Your task to perform on an android device: turn off data saver in the chrome app Image 0: 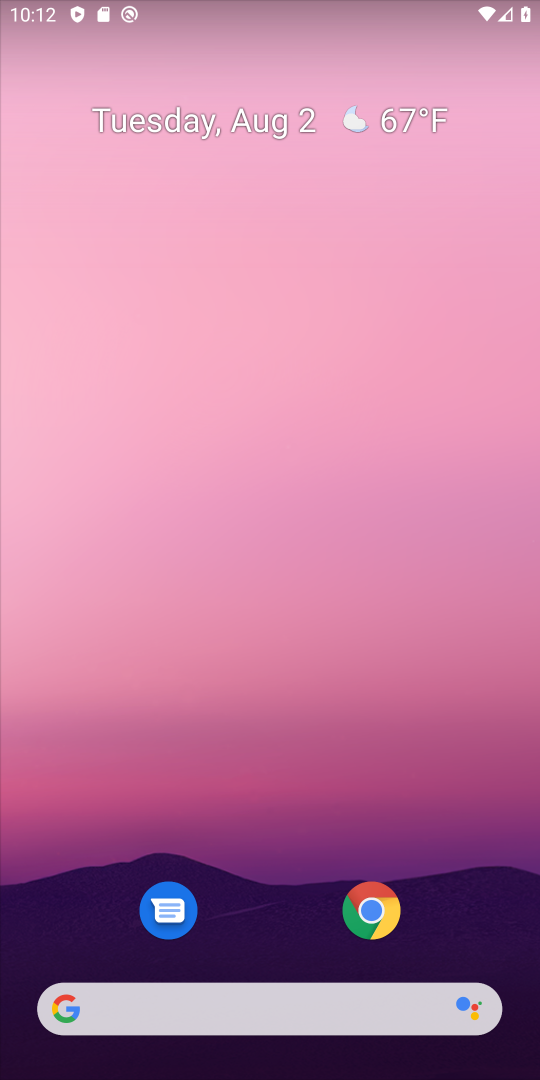
Step 0: drag from (298, 822) to (317, 331)
Your task to perform on an android device: turn off data saver in the chrome app Image 1: 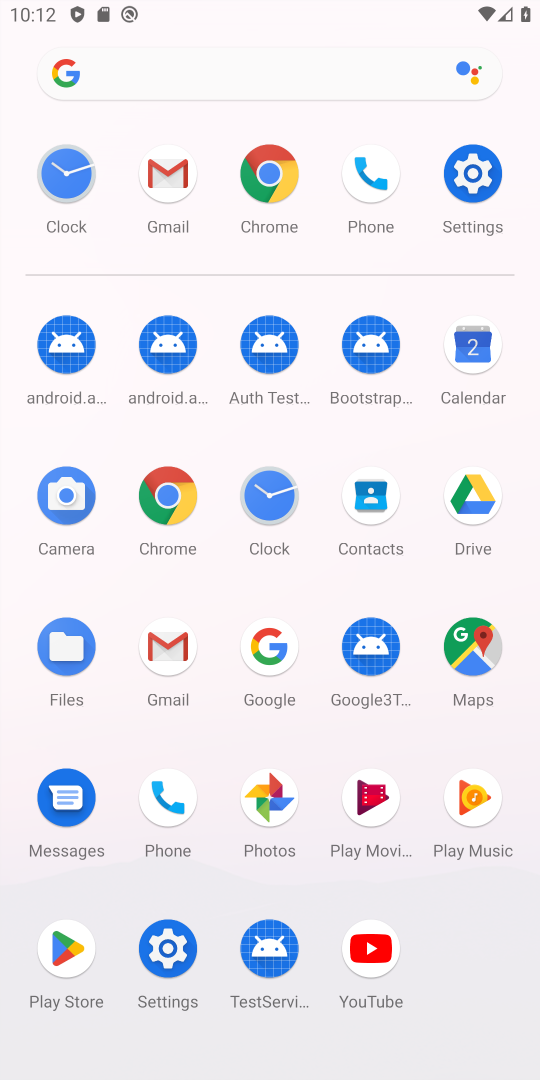
Step 1: click (274, 187)
Your task to perform on an android device: turn off data saver in the chrome app Image 2: 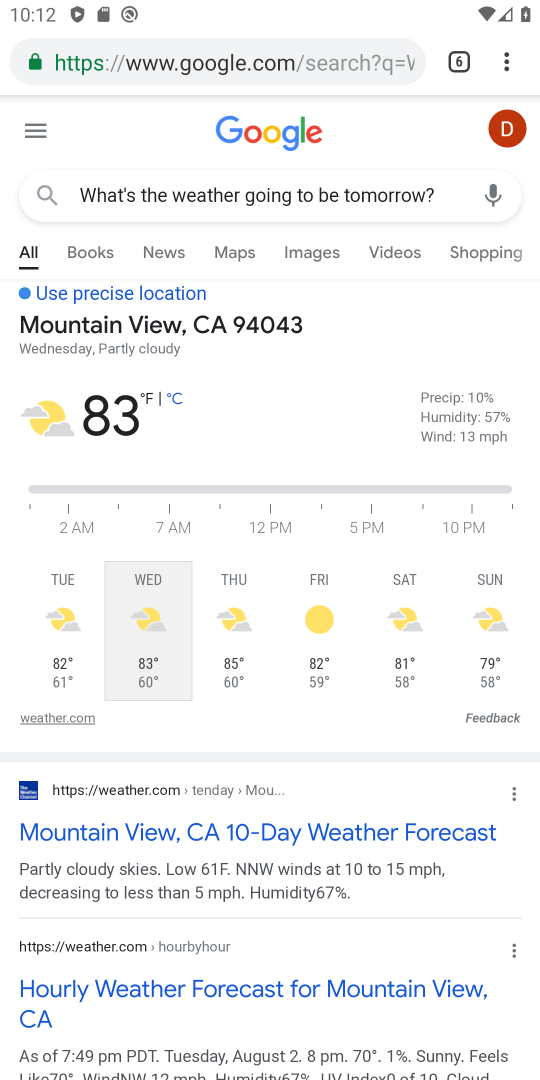
Step 2: click (524, 64)
Your task to perform on an android device: turn off data saver in the chrome app Image 3: 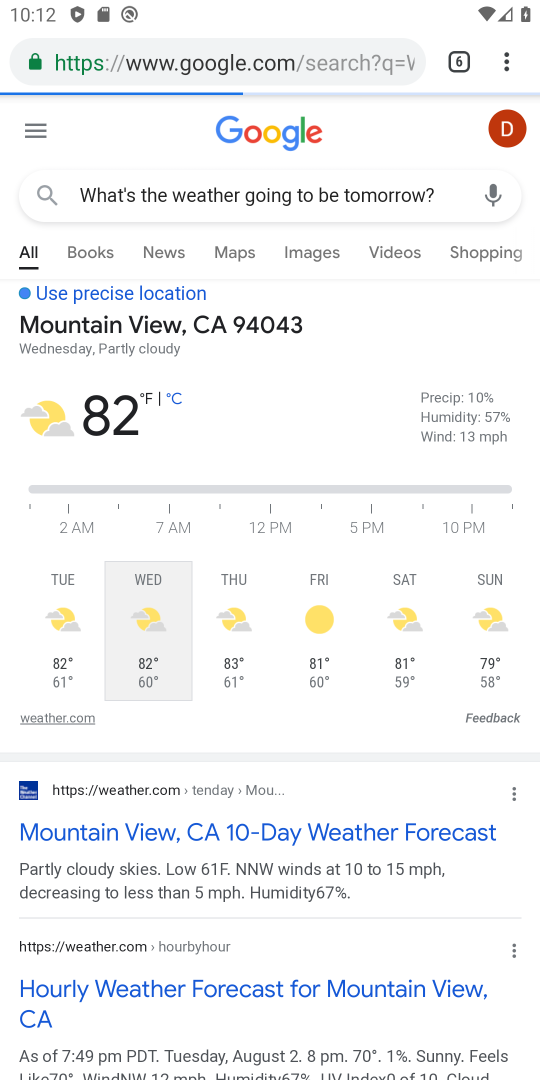
Step 3: click (518, 73)
Your task to perform on an android device: turn off data saver in the chrome app Image 4: 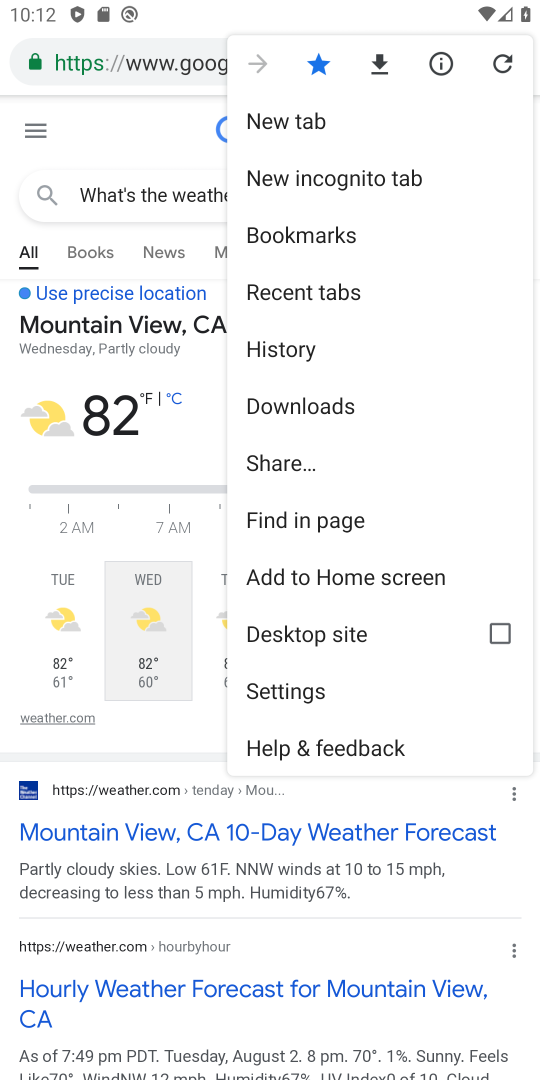
Step 4: click (316, 702)
Your task to perform on an android device: turn off data saver in the chrome app Image 5: 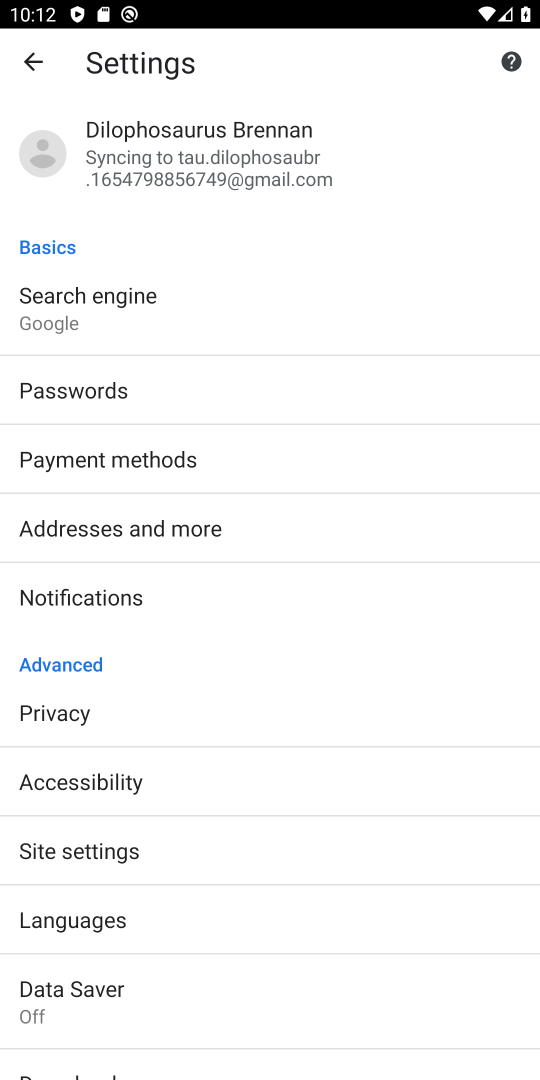
Step 5: click (162, 987)
Your task to perform on an android device: turn off data saver in the chrome app Image 6: 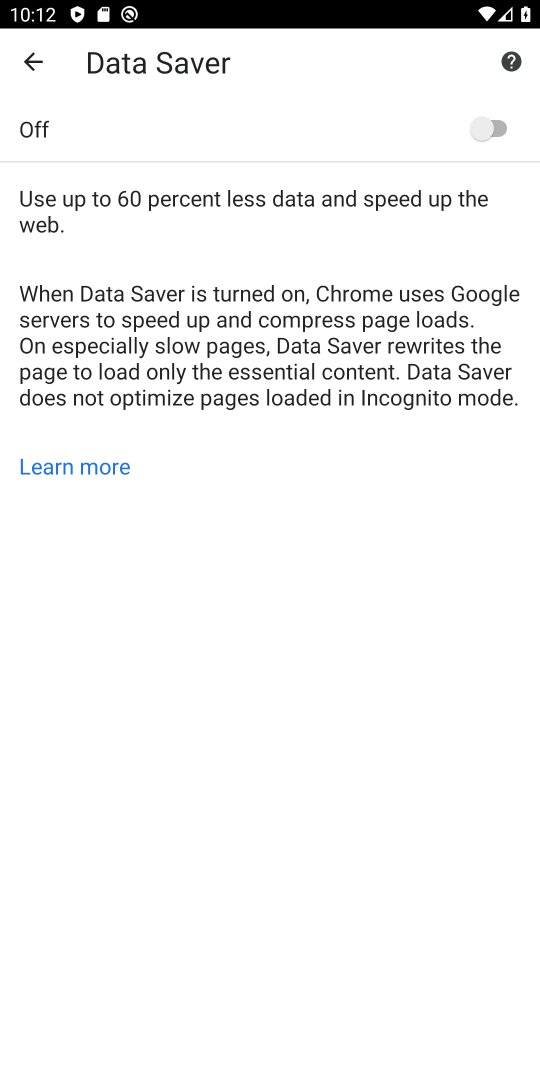
Step 6: task complete